Your task to perform on an android device: What's the weather? Image 0: 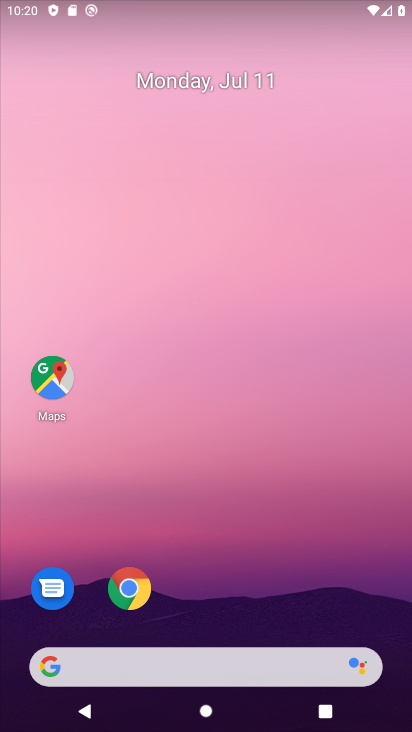
Step 0: click (226, 674)
Your task to perform on an android device: What's the weather? Image 1: 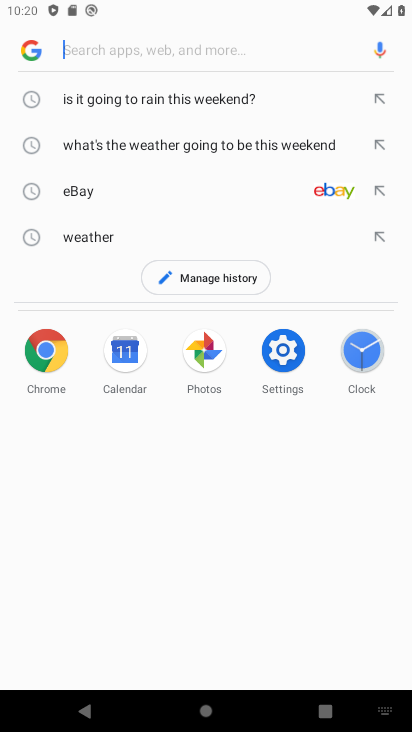
Step 1: click (80, 234)
Your task to perform on an android device: What's the weather? Image 2: 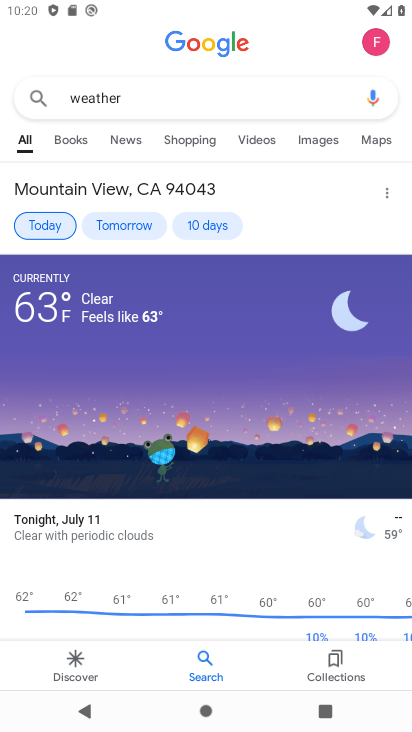
Step 2: task complete